Your task to perform on an android device: toggle pop-ups in chrome Image 0: 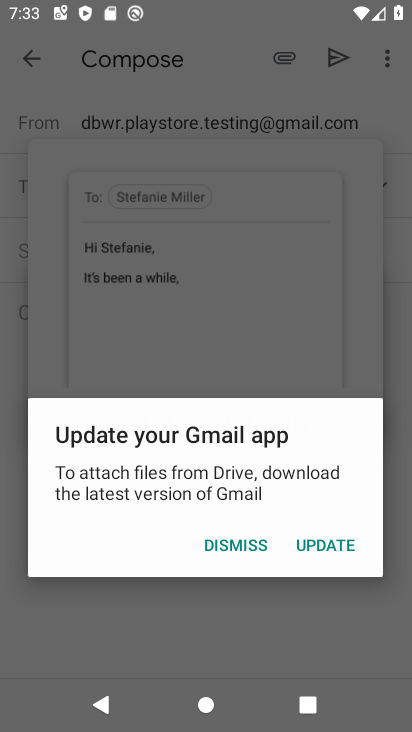
Step 0: press home button
Your task to perform on an android device: toggle pop-ups in chrome Image 1: 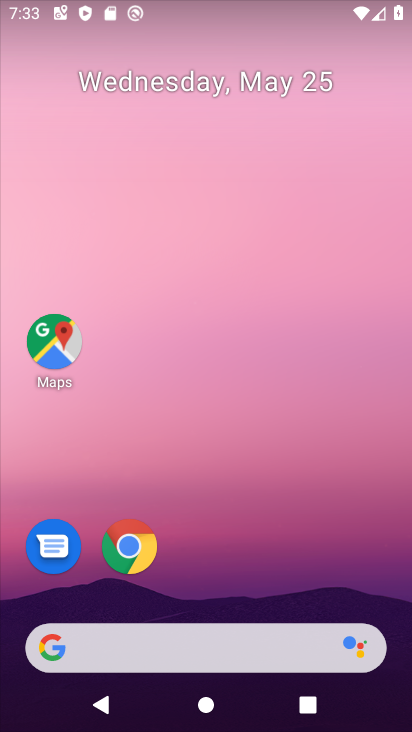
Step 1: click (110, 542)
Your task to perform on an android device: toggle pop-ups in chrome Image 2: 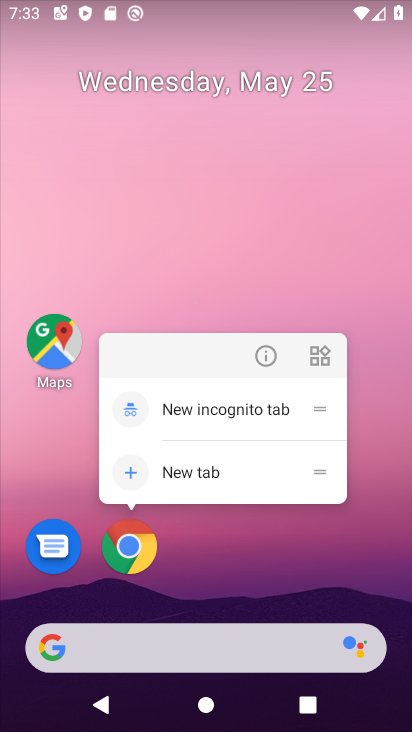
Step 2: click (124, 555)
Your task to perform on an android device: toggle pop-ups in chrome Image 3: 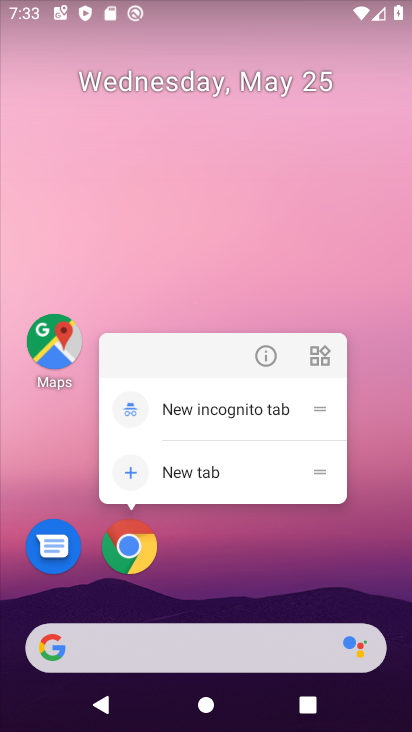
Step 3: click (130, 542)
Your task to perform on an android device: toggle pop-ups in chrome Image 4: 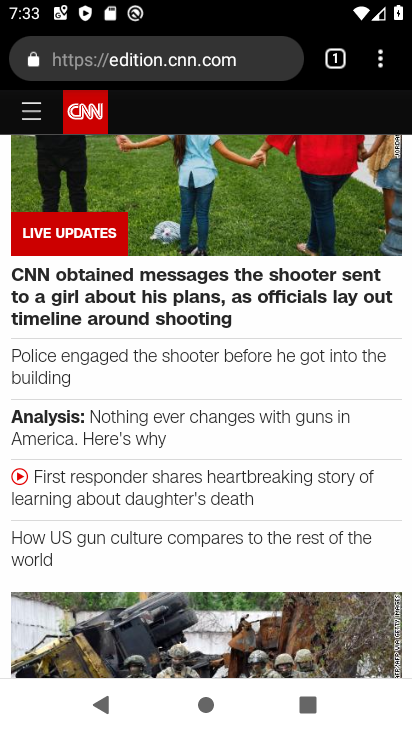
Step 4: drag from (386, 63) to (277, 571)
Your task to perform on an android device: toggle pop-ups in chrome Image 5: 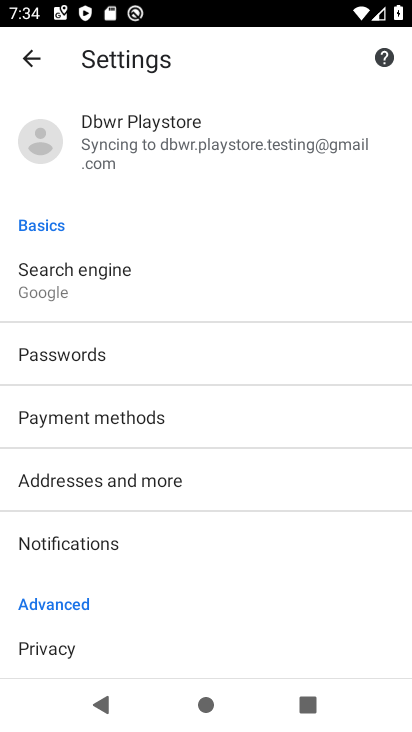
Step 5: drag from (213, 604) to (302, 208)
Your task to perform on an android device: toggle pop-ups in chrome Image 6: 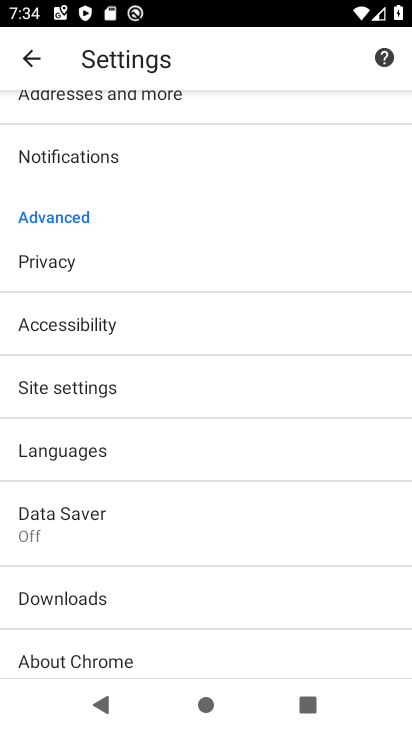
Step 6: click (91, 392)
Your task to perform on an android device: toggle pop-ups in chrome Image 7: 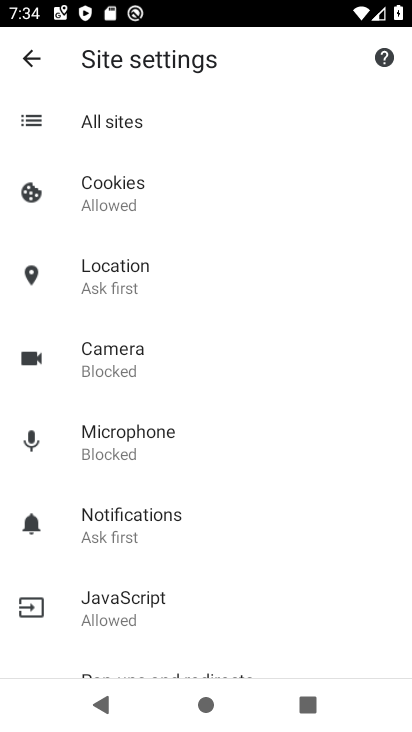
Step 7: drag from (225, 586) to (350, 219)
Your task to perform on an android device: toggle pop-ups in chrome Image 8: 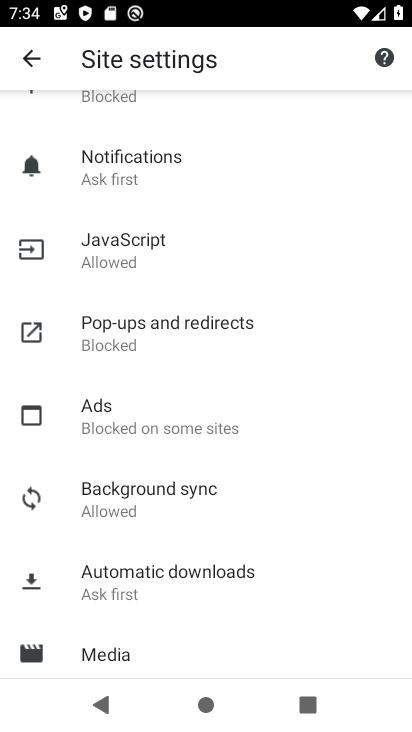
Step 8: click (184, 331)
Your task to perform on an android device: toggle pop-ups in chrome Image 9: 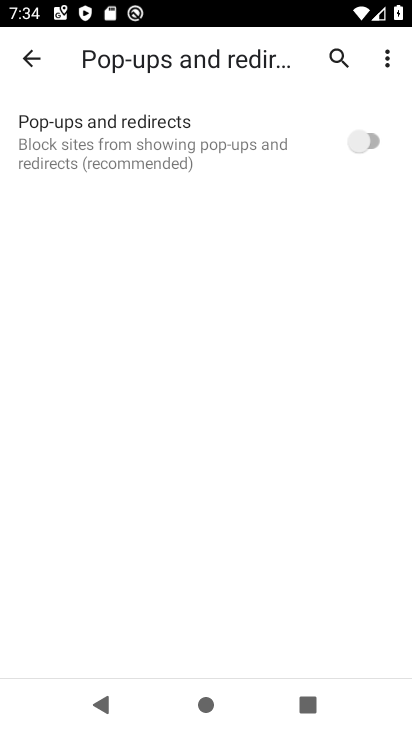
Step 9: click (379, 139)
Your task to perform on an android device: toggle pop-ups in chrome Image 10: 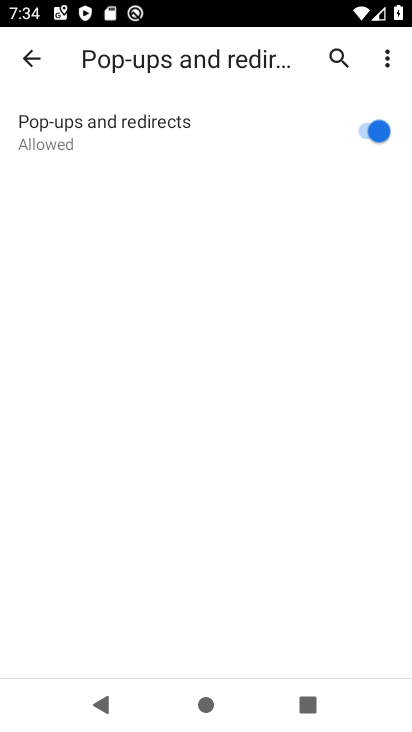
Step 10: task complete